Your task to perform on an android device: Do I have any events this weekend? Image 0: 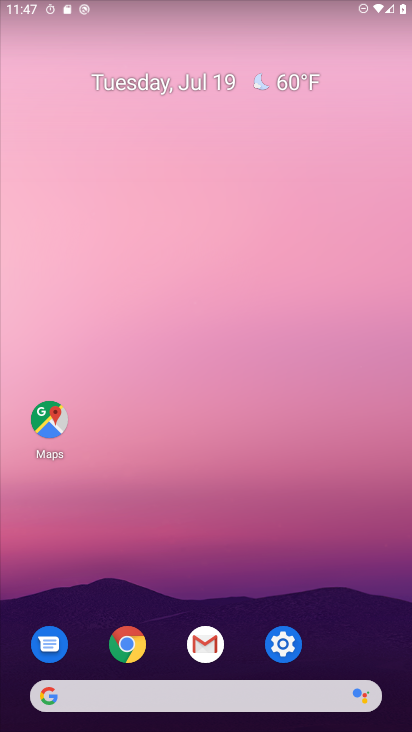
Step 0: drag from (261, 678) to (212, 239)
Your task to perform on an android device: Do I have any events this weekend? Image 1: 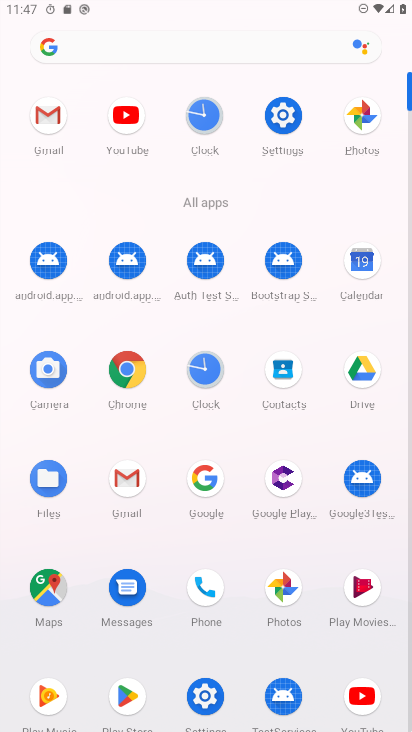
Step 1: click (369, 260)
Your task to perform on an android device: Do I have any events this weekend? Image 2: 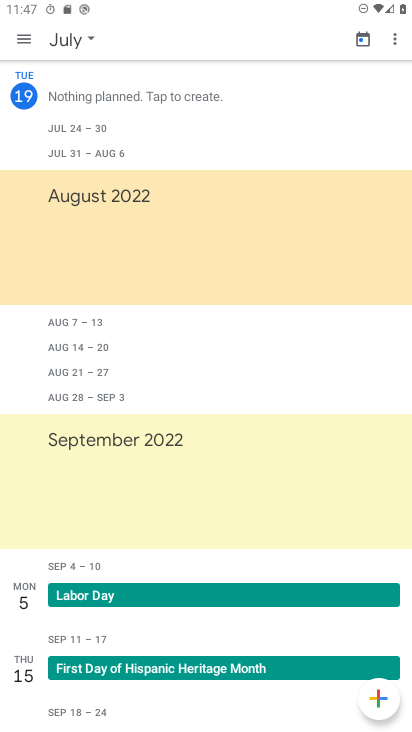
Step 2: click (16, 44)
Your task to perform on an android device: Do I have any events this weekend? Image 3: 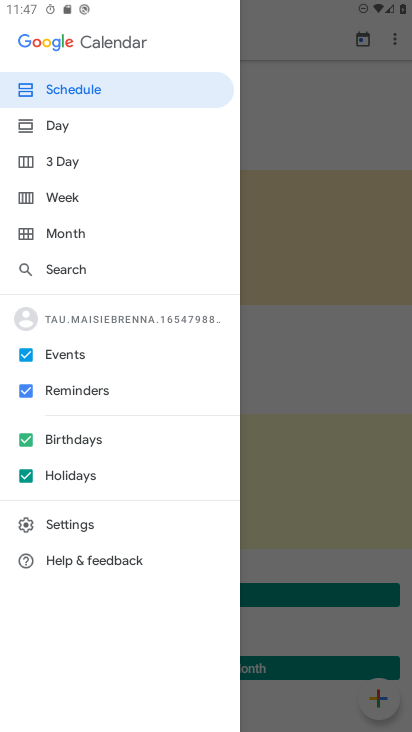
Step 3: click (75, 237)
Your task to perform on an android device: Do I have any events this weekend? Image 4: 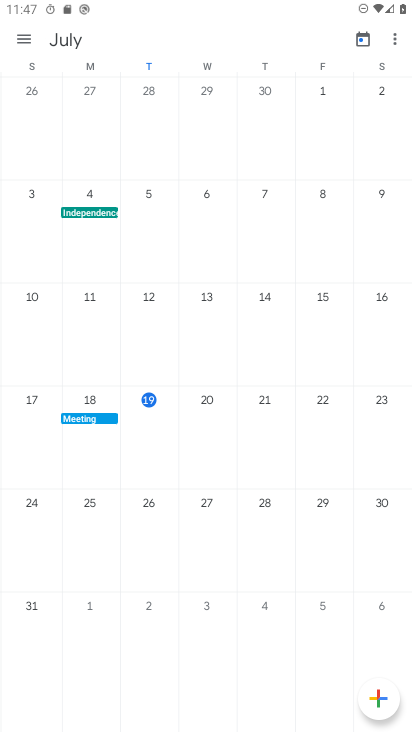
Step 4: click (149, 391)
Your task to perform on an android device: Do I have any events this weekend? Image 5: 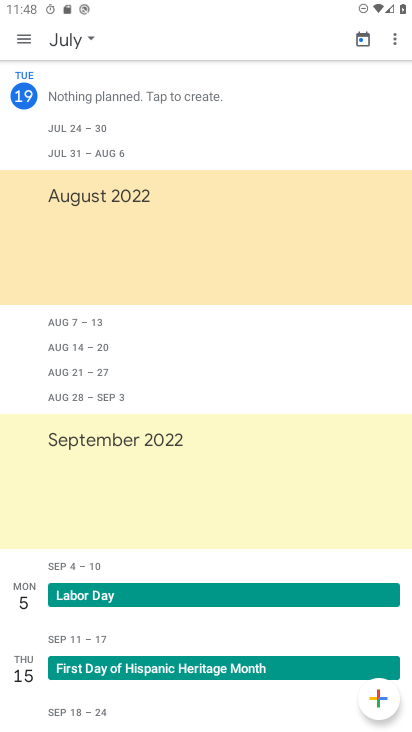
Step 5: task complete